Your task to perform on an android device: allow cookies in the chrome app Image 0: 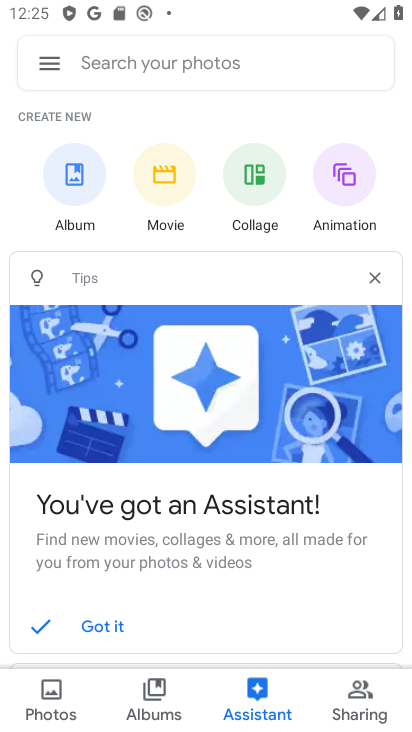
Step 0: press home button
Your task to perform on an android device: allow cookies in the chrome app Image 1: 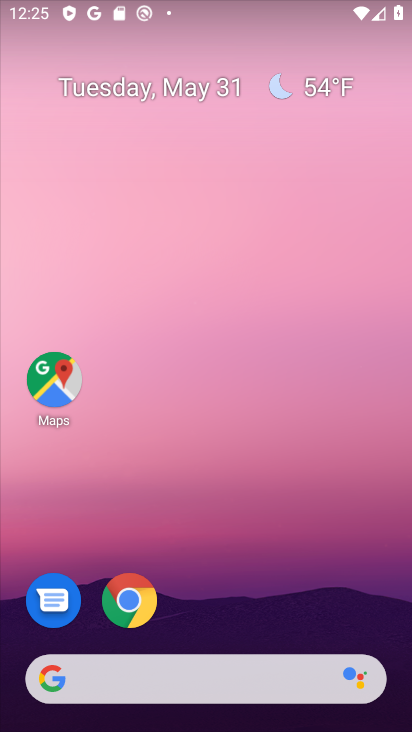
Step 1: click (141, 610)
Your task to perform on an android device: allow cookies in the chrome app Image 2: 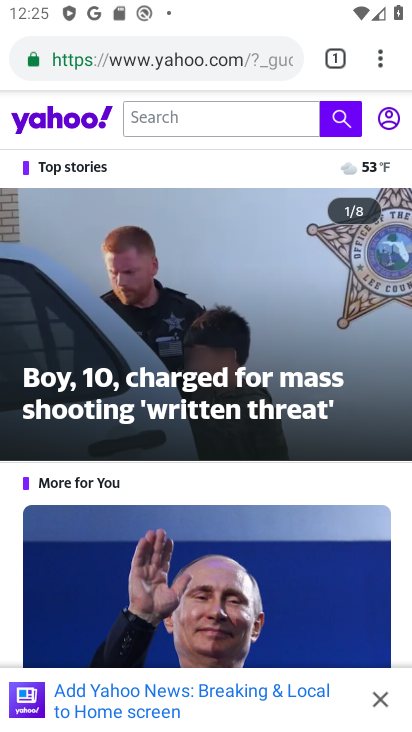
Step 2: click (377, 59)
Your task to perform on an android device: allow cookies in the chrome app Image 3: 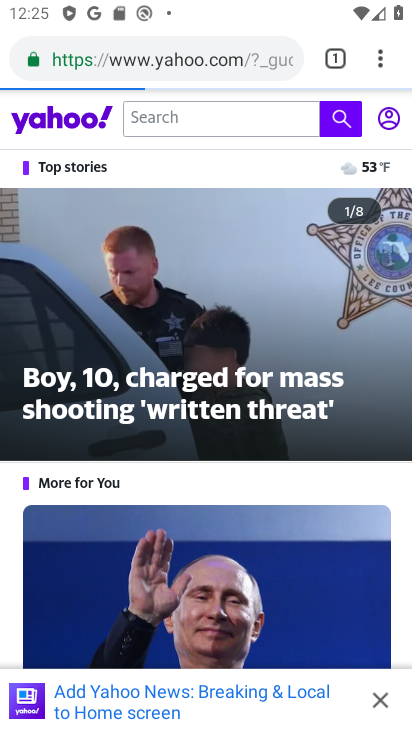
Step 3: drag from (382, 51) to (168, 640)
Your task to perform on an android device: allow cookies in the chrome app Image 4: 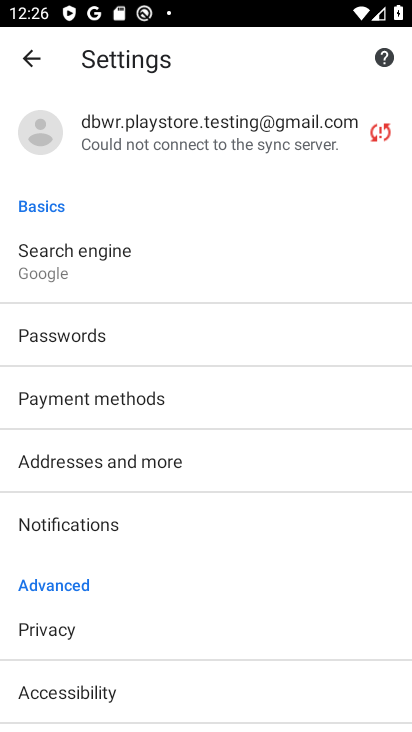
Step 4: drag from (145, 687) to (134, 261)
Your task to perform on an android device: allow cookies in the chrome app Image 5: 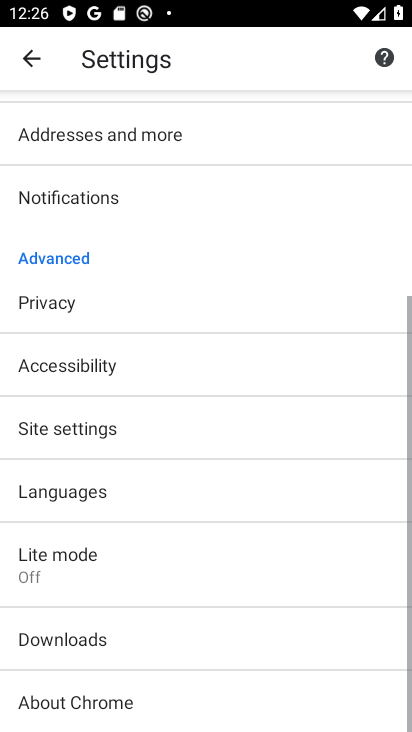
Step 5: click (106, 447)
Your task to perform on an android device: allow cookies in the chrome app Image 6: 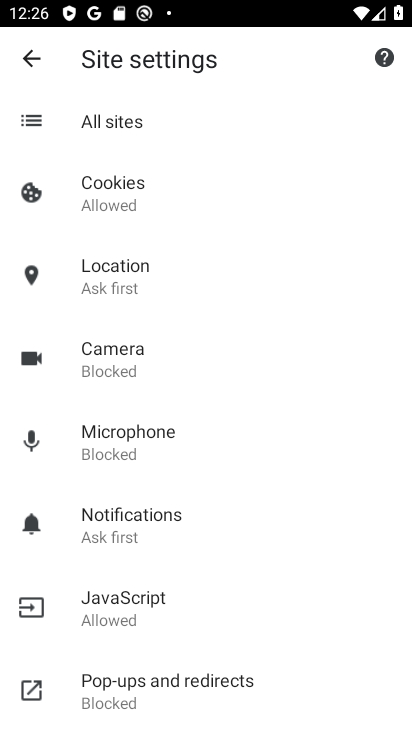
Step 6: click (117, 196)
Your task to perform on an android device: allow cookies in the chrome app Image 7: 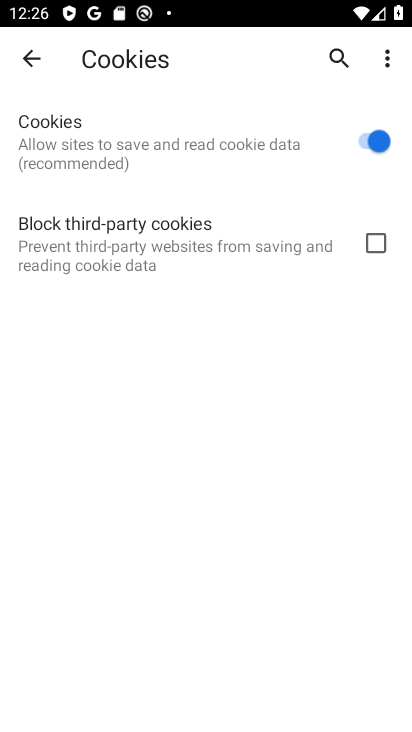
Step 7: task complete